Your task to perform on an android device: Open wifi settings Image 0: 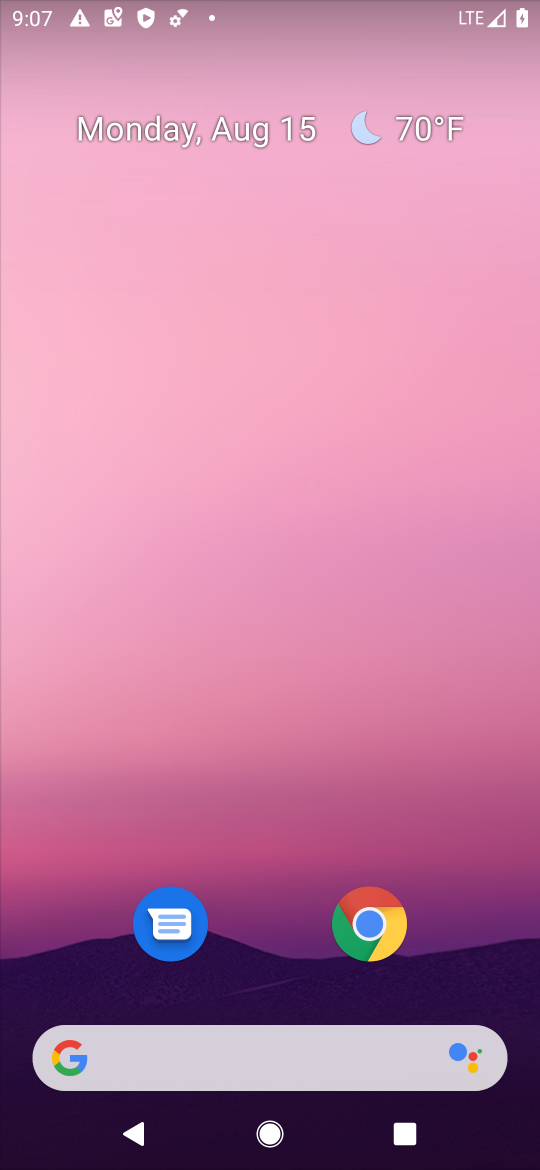
Step 0: drag from (499, 963) to (368, 310)
Your task to perform on an android device: Open wifi settings Image 1: 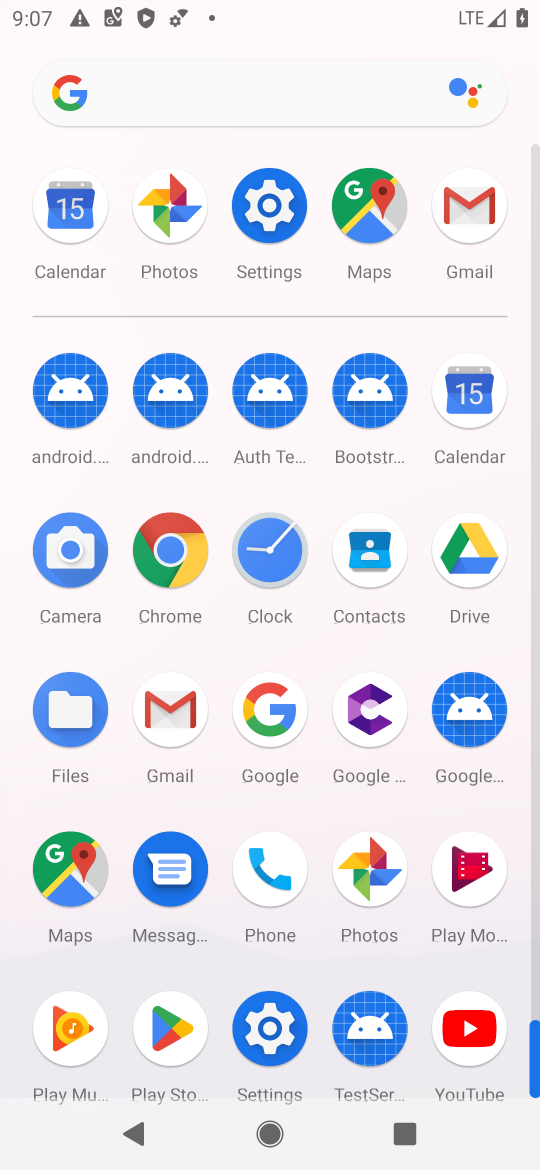
Step 1: click (270, 1036)
Your task to perform on an android device: Open wifi settings Image 2: 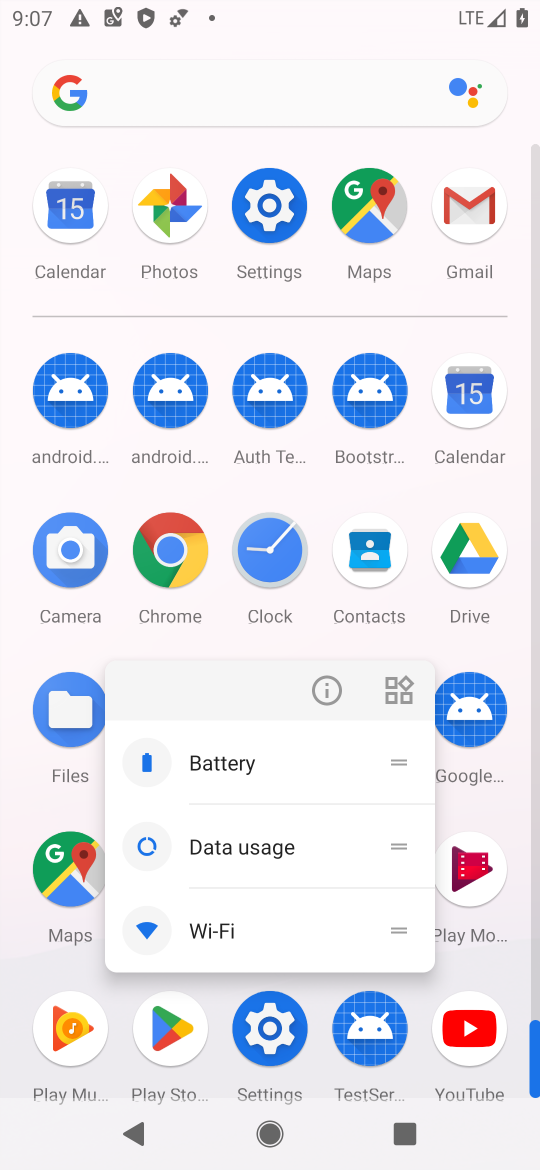
Step 2: click (271, 1033)
Your task to perform on an android device: Open wifi settings Image 3: 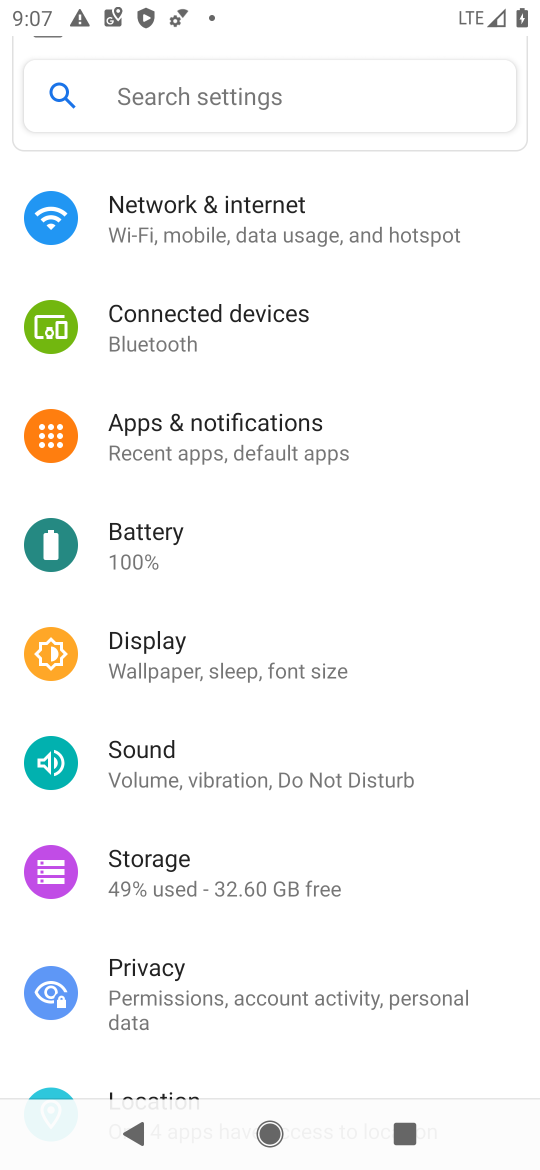
Step 3: click (153, 208)
Your task to perform on an android device: Open wifi settings Image 4: 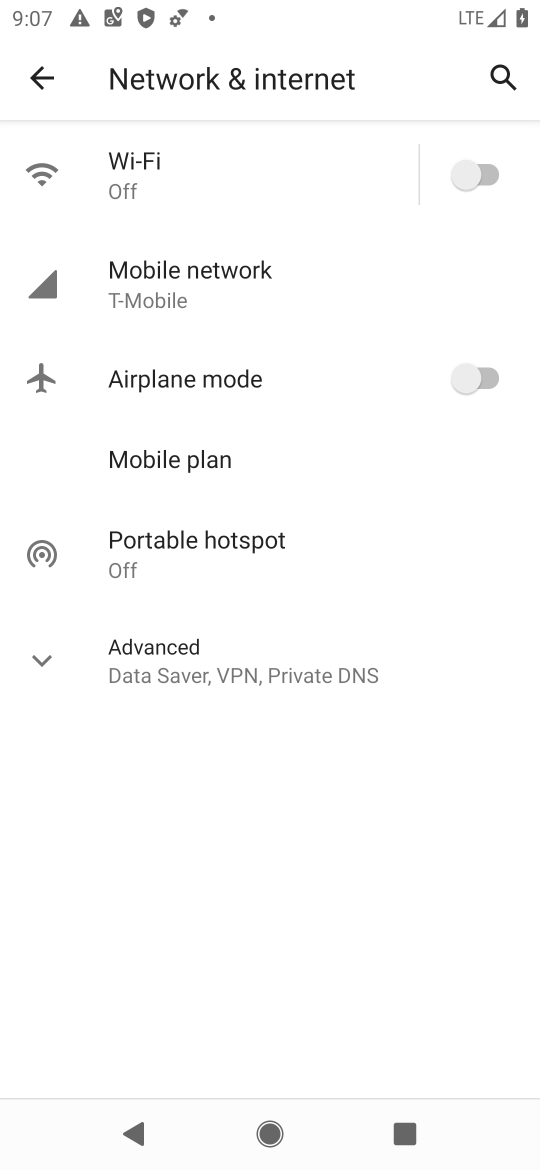
Step 4: click (127, 148)
Your task to perform on an android device: Open wifi settings Image 5: 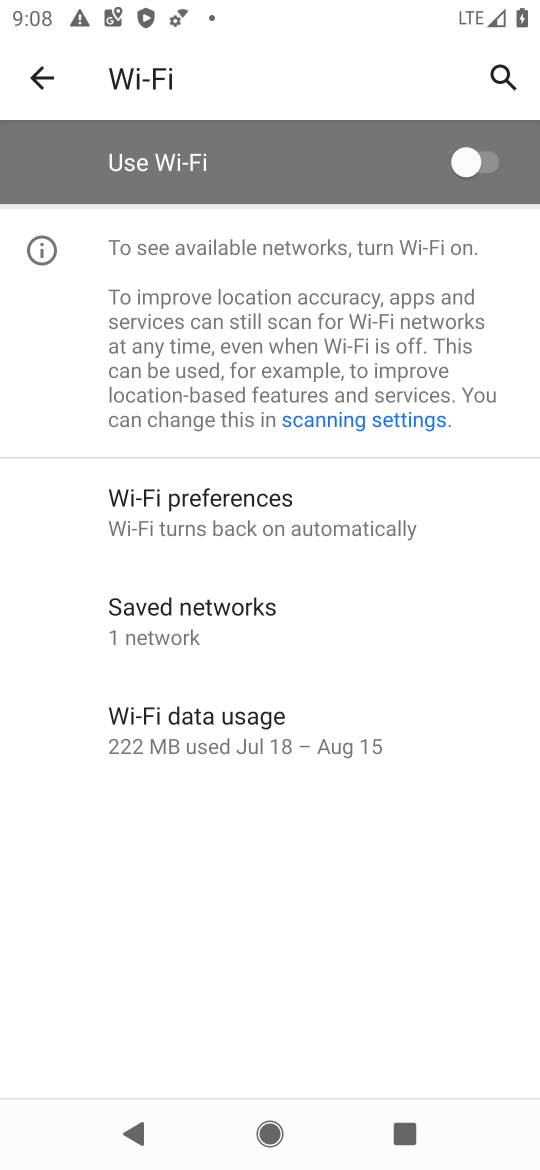
Step 5: task complete